Your task to perform on an android device: set the timer Image 0: 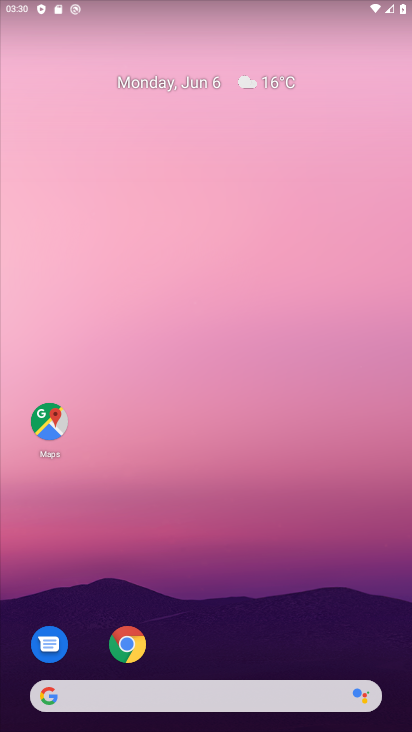
Step 0: drag from (379, 640) to (365, 125)
Your task to perform on an android device: set the timer Image 1: 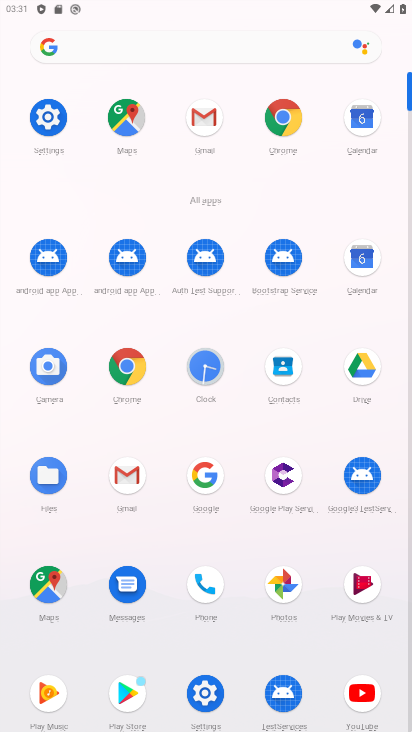
Step 1: click (200, 364)
Your task to perform on an android device: set the timer Image 2: 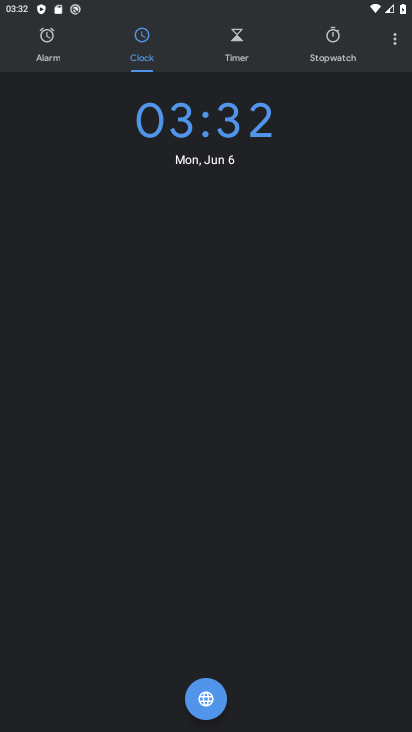
Step 2: click (243, 45)
Your task to perform on an android device: set the timer Image 3: 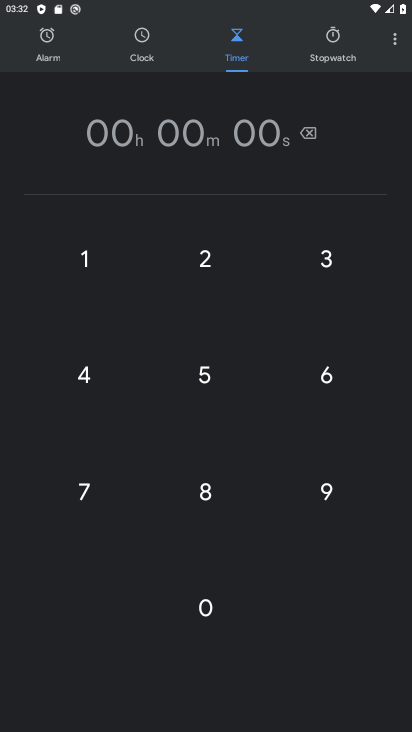
Step 3: click (204, 271)
Your task to perform on an android device: set the timer Image 4: 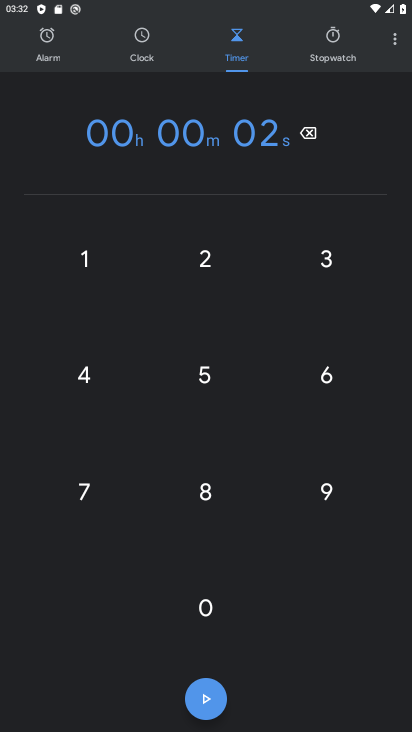
Step 4: click (205, 263)
Your task to perform on an android device: set the timer Image 5: 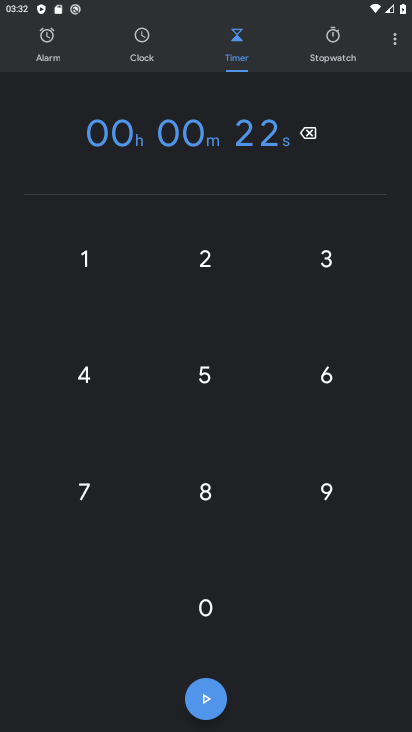
Step 5: click (219, 684)
Your task to perform on an android device: set the timer Image 6: 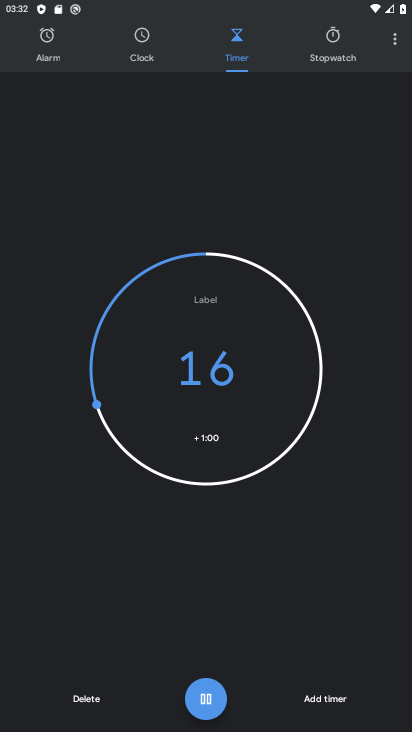
Step 6: task complete